Your task to perform on an android device: Search for pizza restaurants on Maps Image 0: 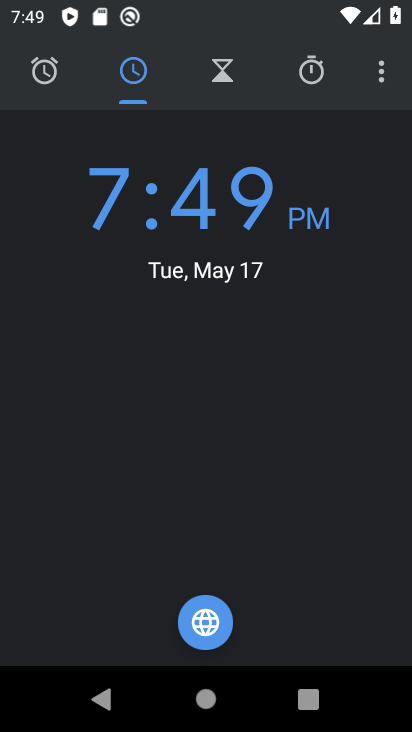
Step 0: press back button
Your task to perform on an android device: Search for pizza restaurants on Maps Image 1: 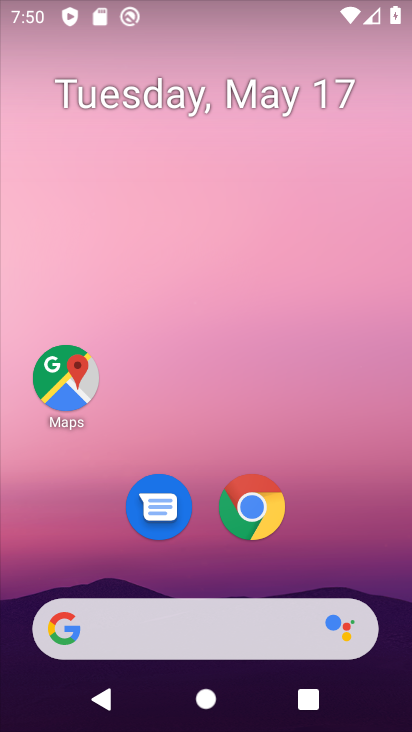
Step 1: drag from (273, 679) to (267, 65)
Your task to perform on an android device: Search for pizza restaurants on Maps Image 2: 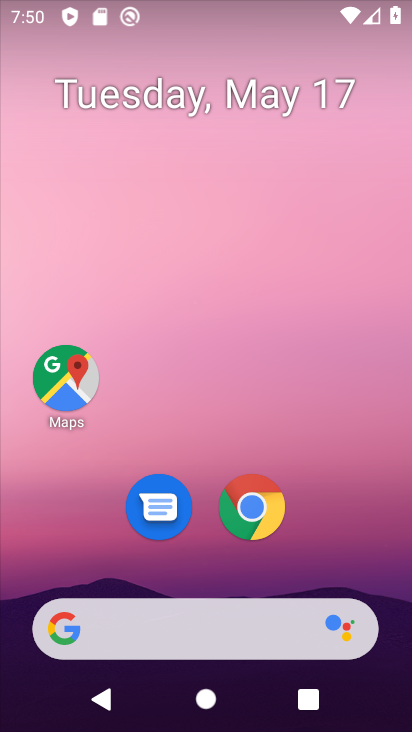
Step 2: click (170, 28)
Your task to perform on an android device: Search for pizza restaurants on Maps Image 3: 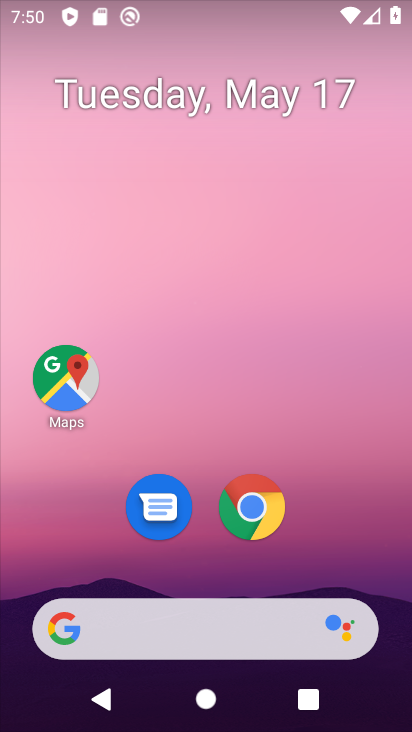
Step 3: click (193, 45)
Your task to perform on an android device: Search for pizza restaurants on Maps Image 4: 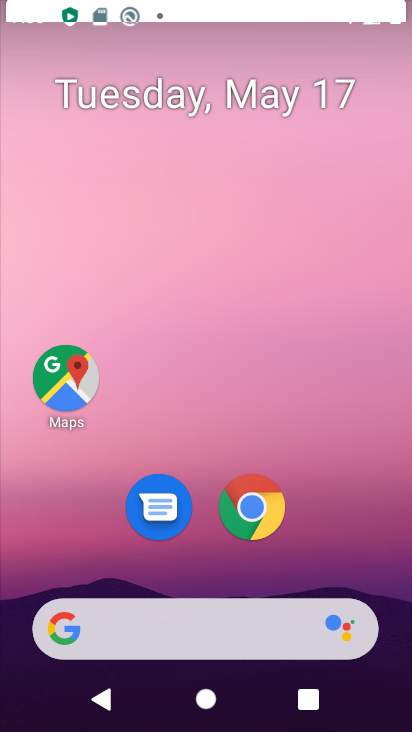
Step 4: drag from (242, 643) to (215, 77)
Your task to perform on an android device: Search for pizza restaurants on Maps Image 5: 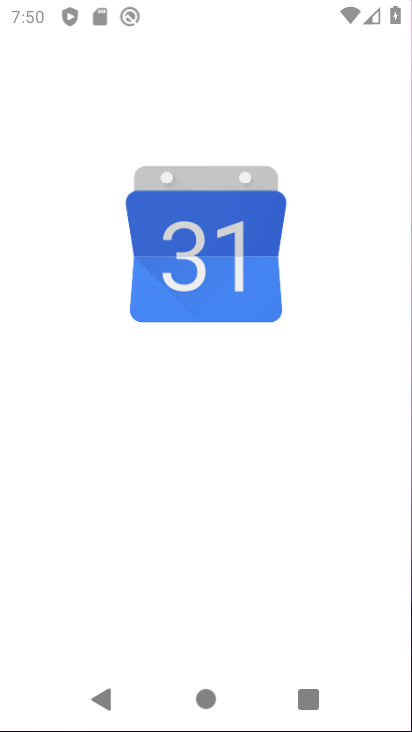
Step 5: drag from (296, 574) to (255, 42)
Your task to perform on an android device: Search for pizza restaurants on Maps Image 6: 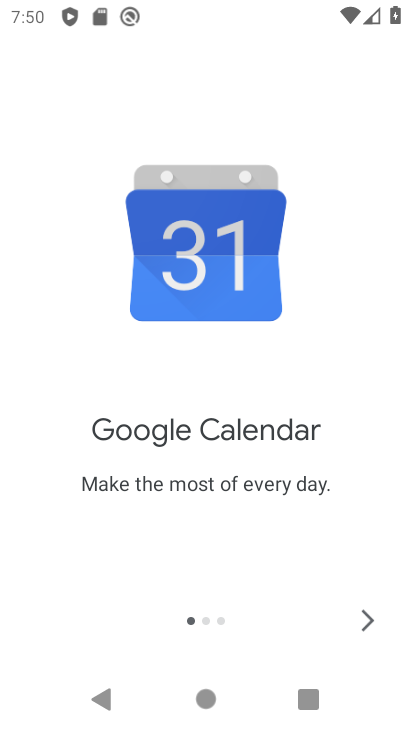
Step 6: press back button
Your task to perform on an android device: Search for pizza restaurants on Maps Image 7: 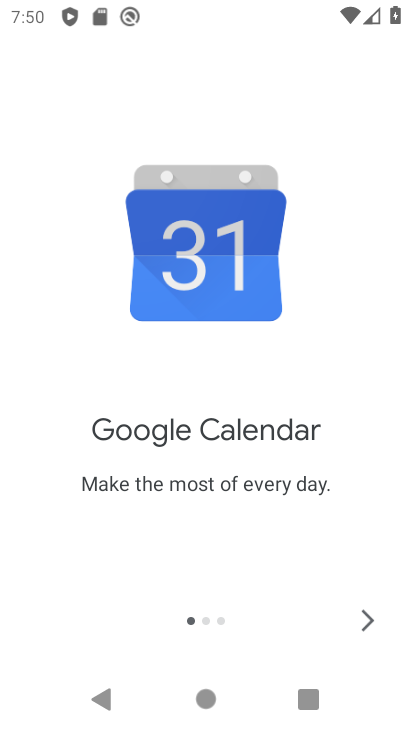
Step 7: press back button
Your task to perform on an android device: Search for pizza restaurants on Maps Image 8: 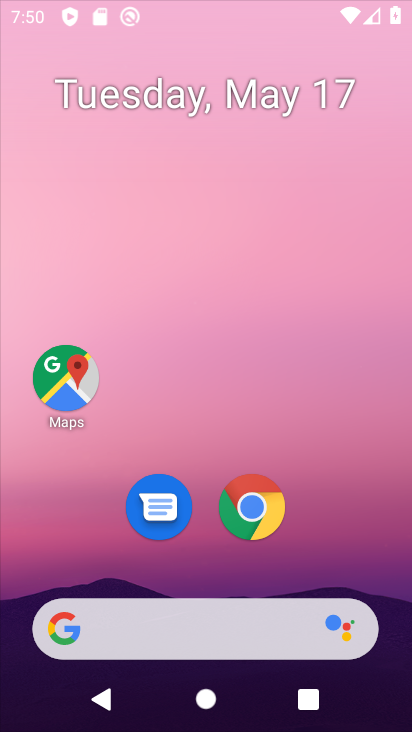
Step 8: press back button
Your task to perform on an android device: Search for pizza restaurants on Maps Image 9: 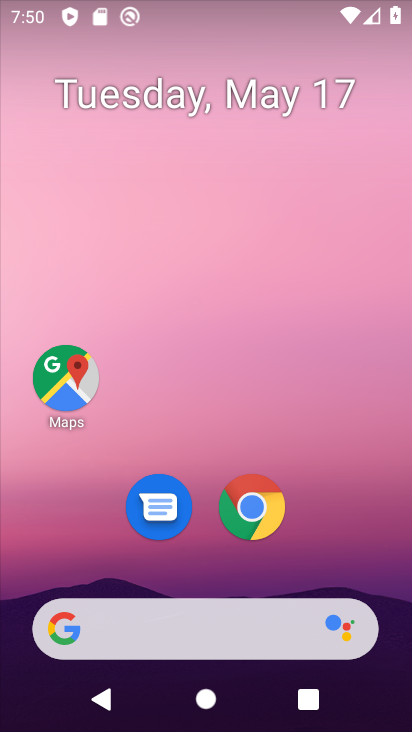
Step 9: drag from (262, 645) to (134, 43)
Your task to perform on an android device: Search for pizza restaurants on Maps Image 10: 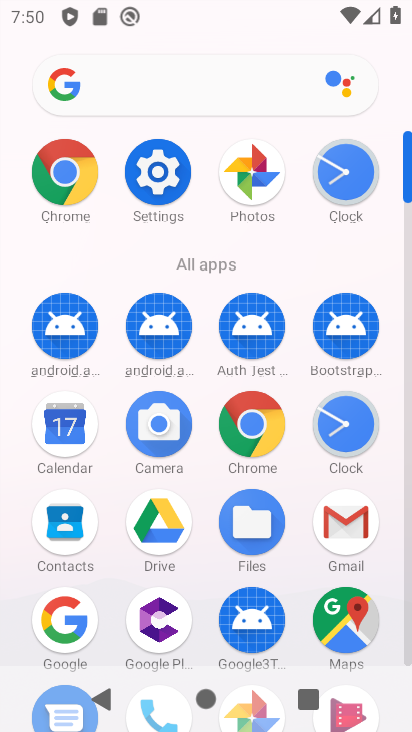
Step 10: click (337, 632)
Your task to perform on an android device: Search for pizza restaurants on Maps Image 11: 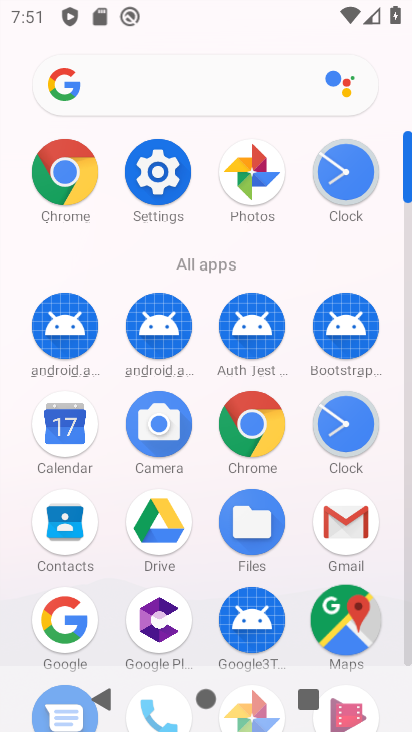
Step 11: click (341, 630)
Your task to perform on an android device: Search for pizza restaurants on Maps Image 12: 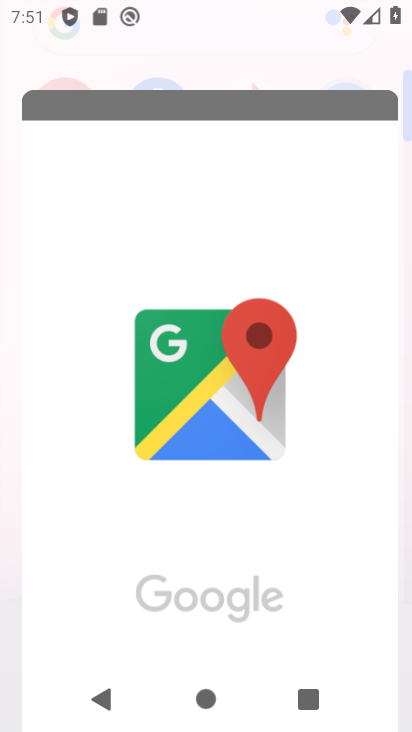
Step 12: click (341, 630)
Your task to perform on an android device: Search for pizza restaurants on Maps Image 13: 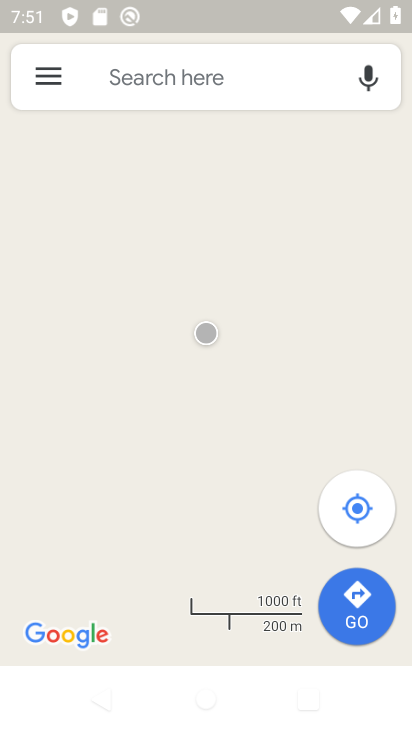
Step 13: click (113, 57)
Your task to perform on an android device: Search for pizza restaurants on Maps Image 14: 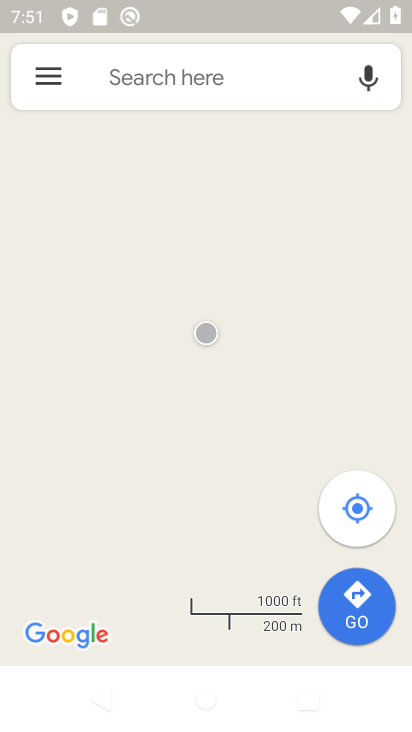
Step 14: click (103, 73)
Your task to perform on an android device: Search for pizza restaurants on Maps Image 15: 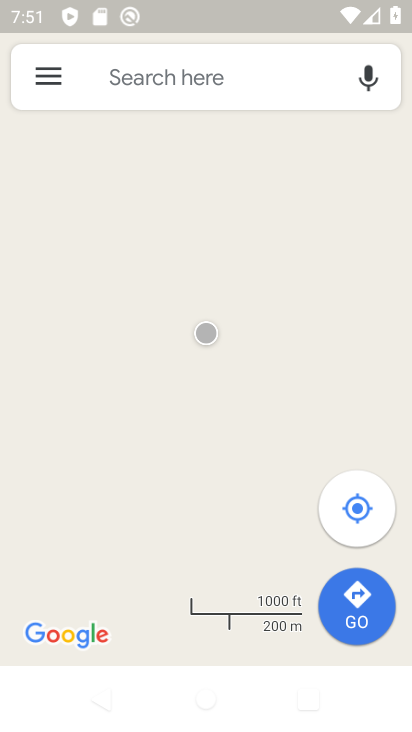
Step 15: click (114, 72)
Your task to perform on an android device: Search for pizza restaurants on Maps Image 16: 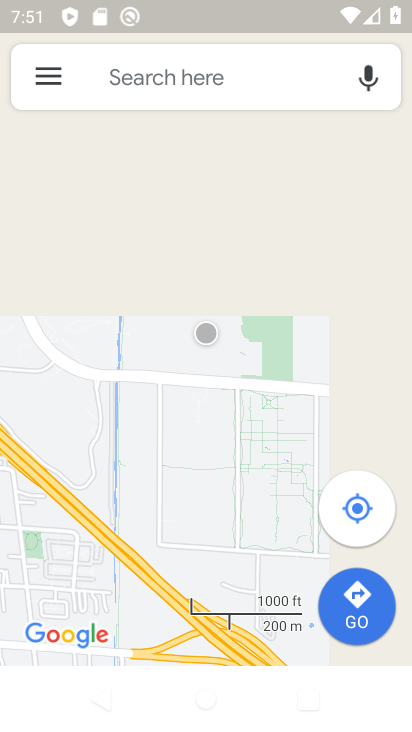
Step 16: click (117, 72)
Your task to perform on an android device: Search for pizza restaurants on Maps Image 17: 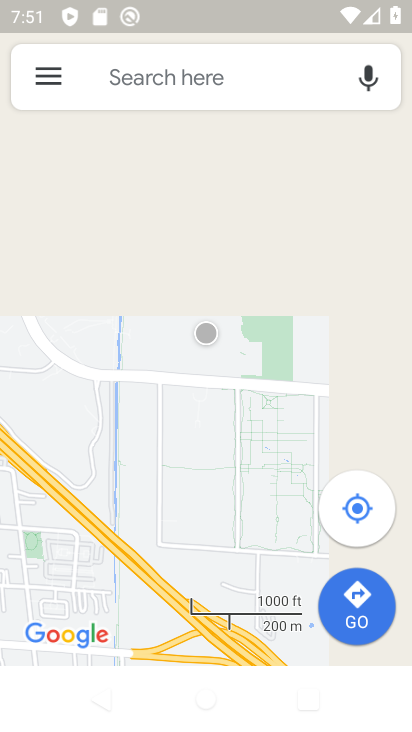
Step 17: click (118, 71)
Your task to perform on an android device: Search for pizza restaurants on Maps Image 18: 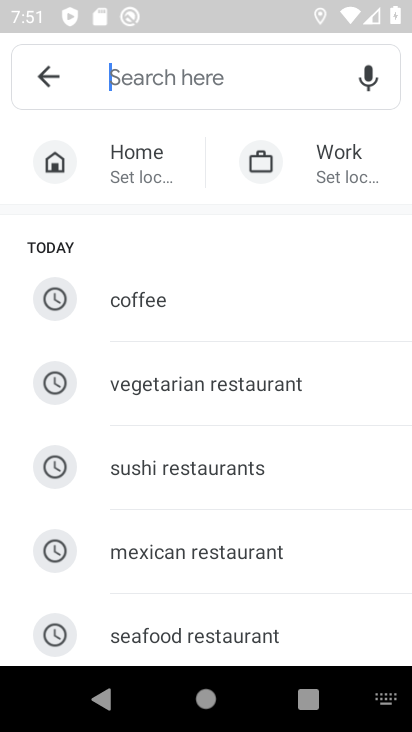
Step 18: type "pizza restaurants"
Your task to perform on an android device: Search for pizza restaurants on Maps Image 19: 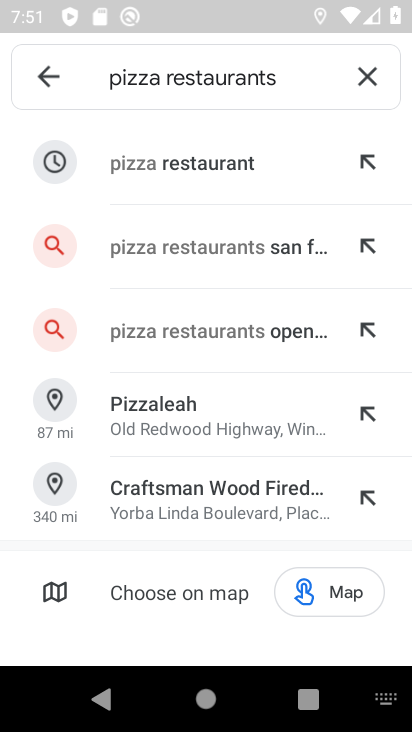
Step 19: click (186, 175)
Your task to perform on an android device: Search for pizza restaurants on Maps Image 20: 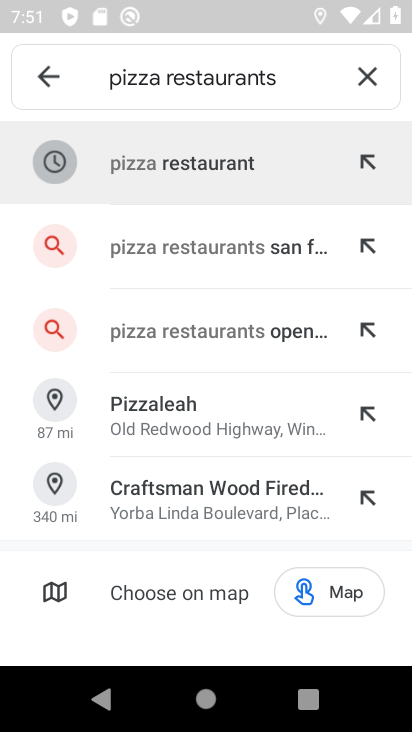
Step 20: click (186, 175)
Your task to perform on an android device: Search for pizza restaurants on Maps Image 21: 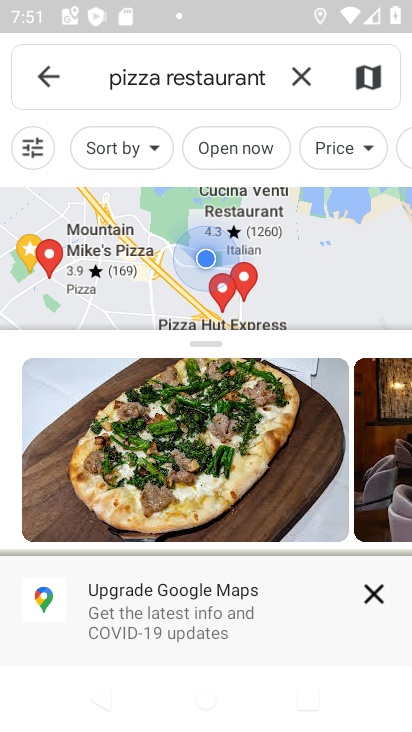
Step 21: task complete